Your task to perform on an android device: turn on sleep mode Image 0: 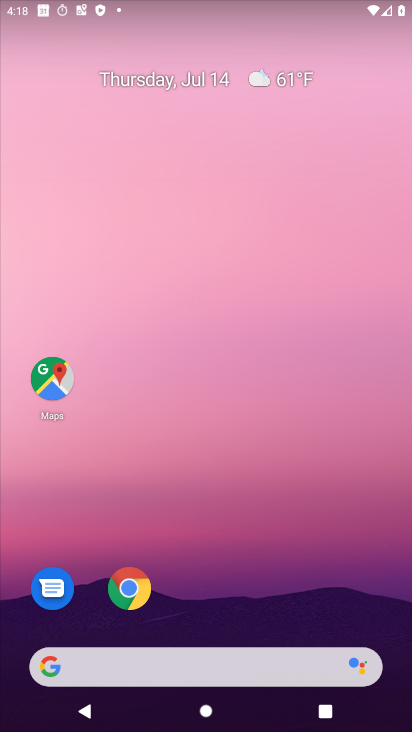
Step 0: drag from (208, 669) to (214, 243)
Your task to perform on an android device: turn on sleep mode Image 1: 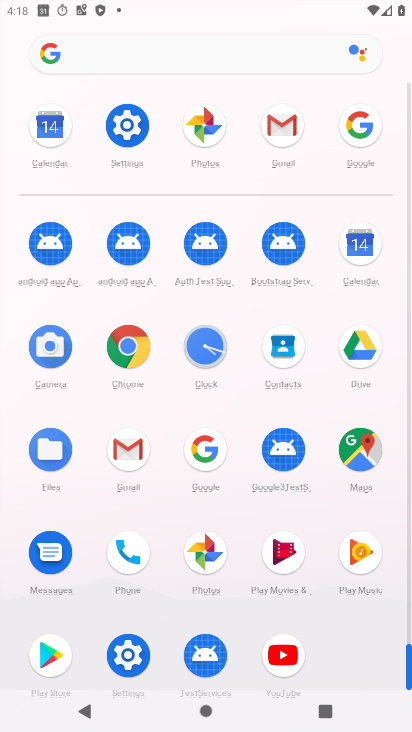
Step 1: click (127, 656)
Your task to perform on an android device: turn on sleep mode Image 2: 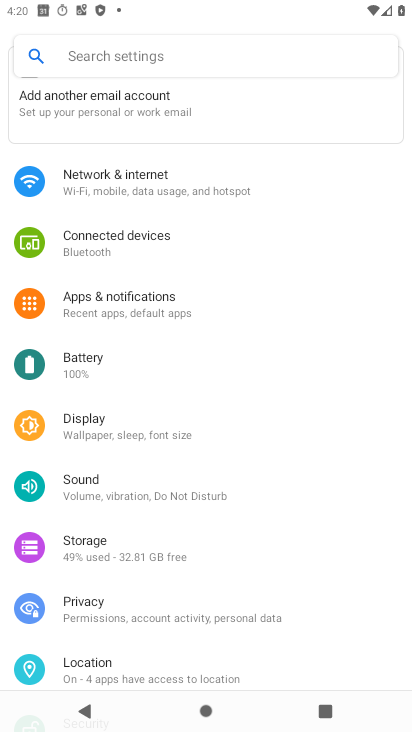
Step 2: click (92, 440)
Your task to perform on an android device: turn on sleep mode Image 3: 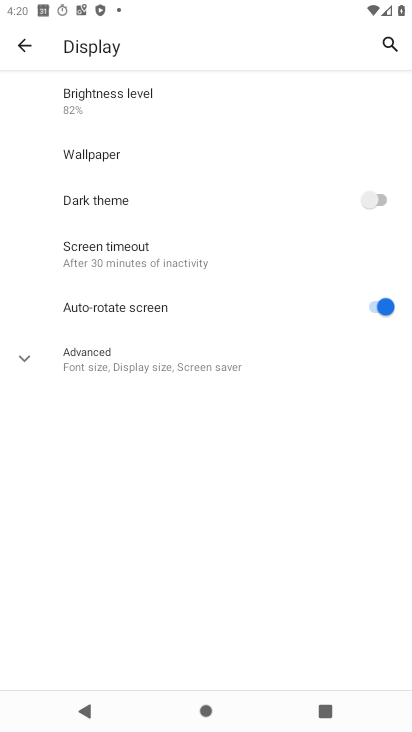
Step 3: click (175, 251)
Your task to perform on an android device: turn on sleep mode Image 4: 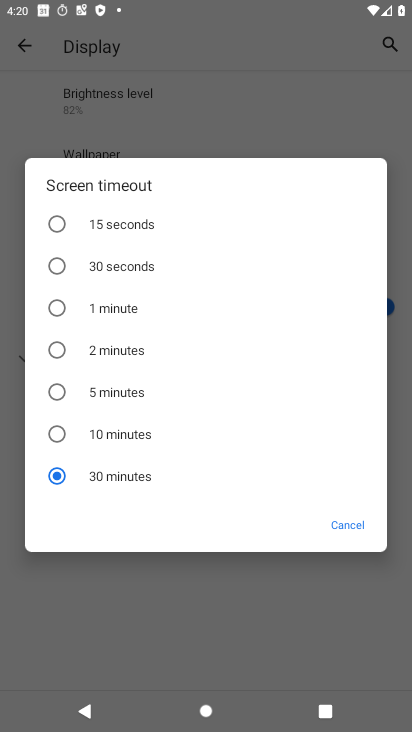
Step 4: click (341, 526)
Your task to perform on an android device: turn on sleep mode Image 5: 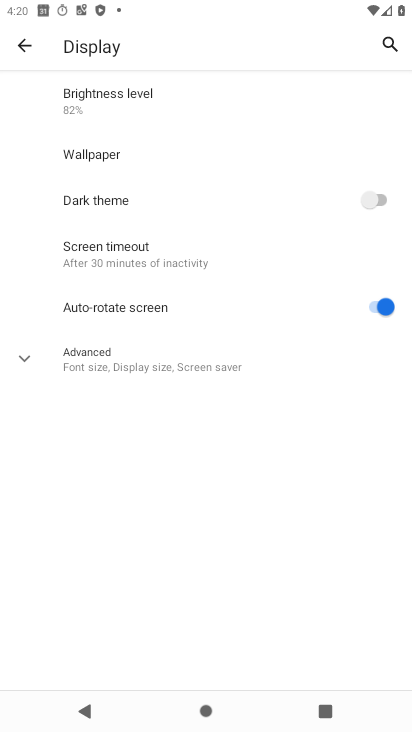
Step 5: click (84, 359)
Your task to perform on an android device: turn on sleep mode Image 6: 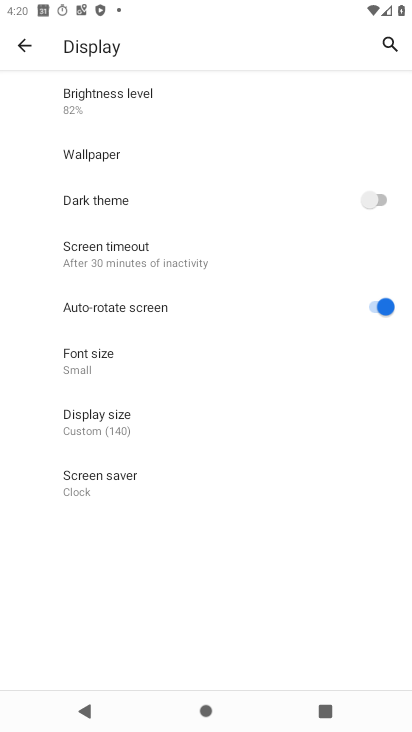
Step 6: task complete